Your task to perform on an android device: show emergency info Image 0: 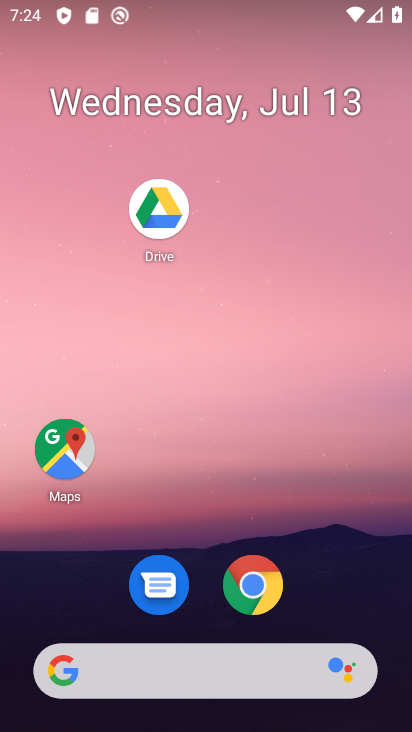
Step 0: drag from (213, 671) to (377, 52)
Your task to perform on an android device: show emergency info Image 1: 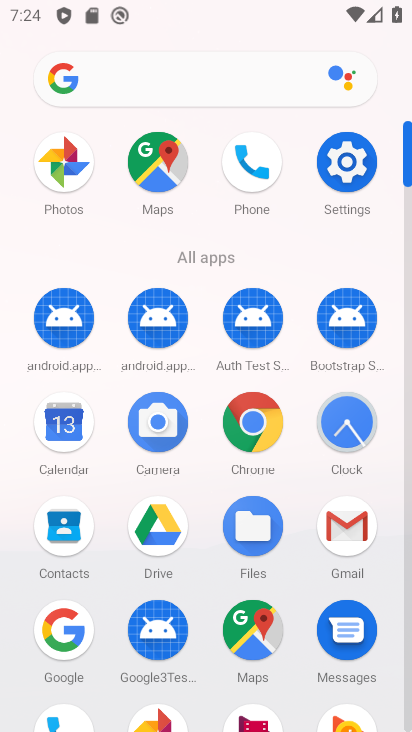
Step 1: click (346, 165)
Your task to perform on an android device: show emergency info Image 2: 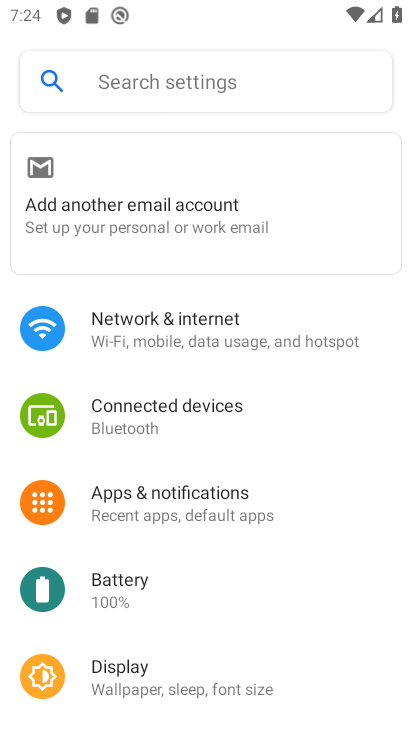
Step 2: drag from (300, 423) to (338, 56)
Your task to perform on an android device: show emergency info Image 3: 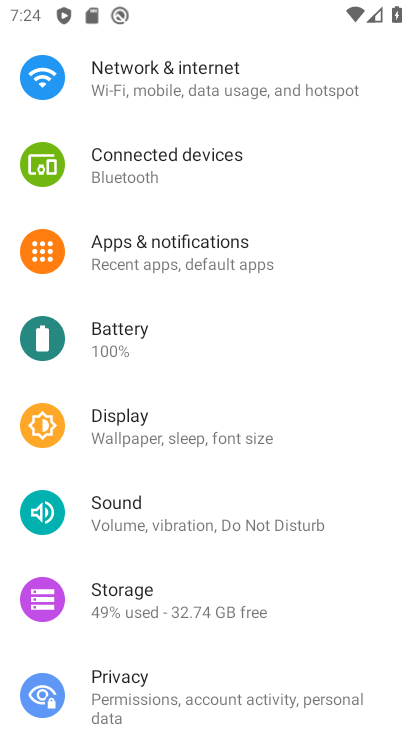
Step 3: drag from (302, 600) to (400, 14)
Your task to perform on an android device: show emergency info Image 4: 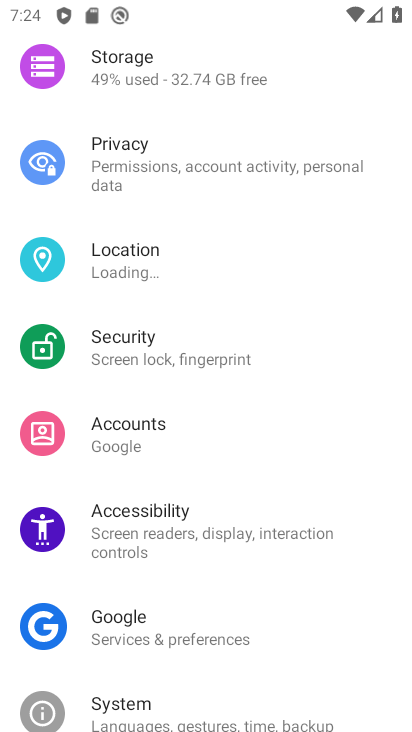
Step 4: drag from (268, 657) to (410, 43)
Your task to perform on an android device: show emergency info Image 5: 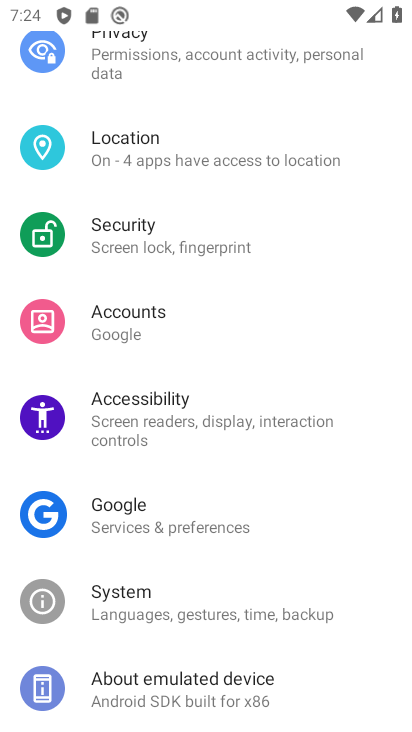
Step 5: click (208, 680)
Your task to perform on an android device: show emergency info Image 6: 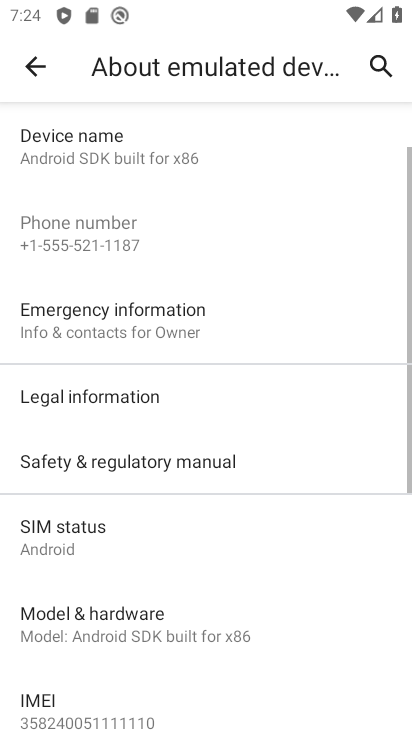
Step 6: click (142, 318)
Your task to perform on an android device: show emergency info Image 7: 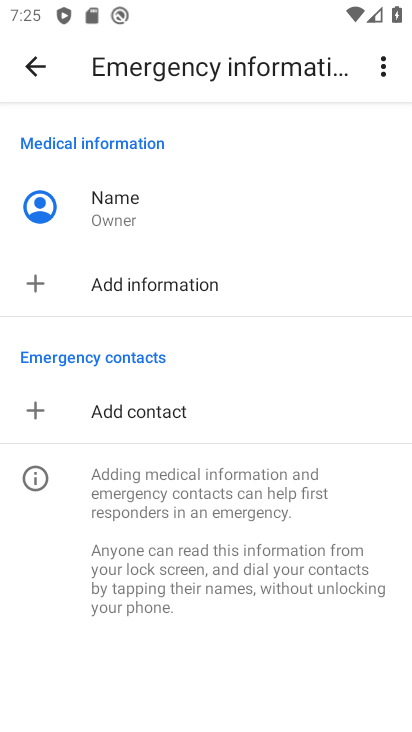
Step 7: task complete